Your task to perform on an android device: find which apps use the phone's location Image 0: 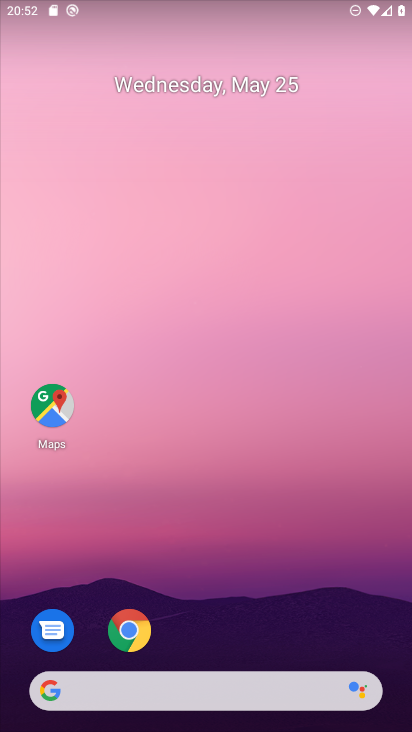
Step 0: drag from (256, 600) to (326, 148)
Your task to perform on an android device: find which apps use the phone's location Image 1: 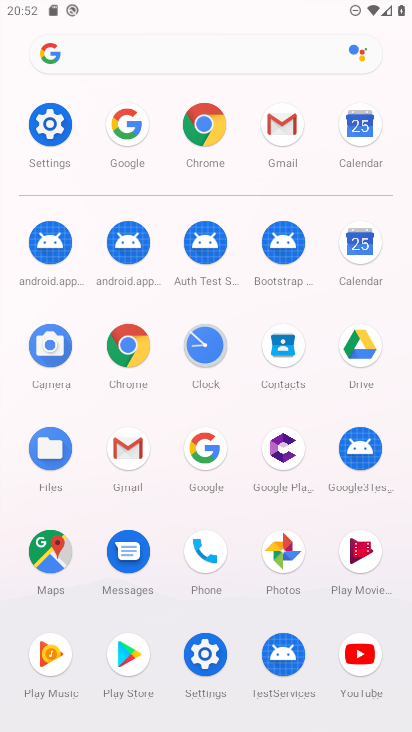
Step 1: click (48, 124)
Your task to perform on an android device: find which apps use the phone's location Image 2: 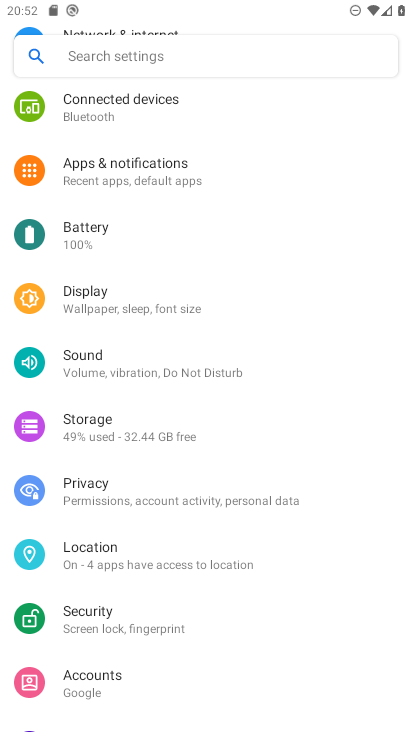
Step 2: click (104, 562)
Your task to perform on an android device: find which apps use the phone's location Image 3: 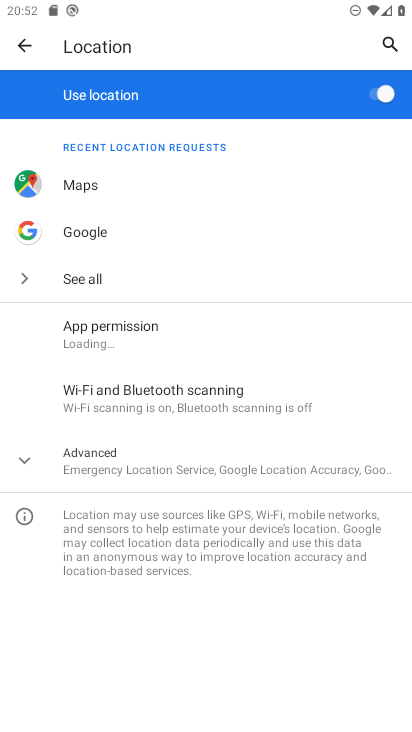
Step 3: click (106, 333)
Your task to perform on an android device: find which apps use the phone's location Image 4: 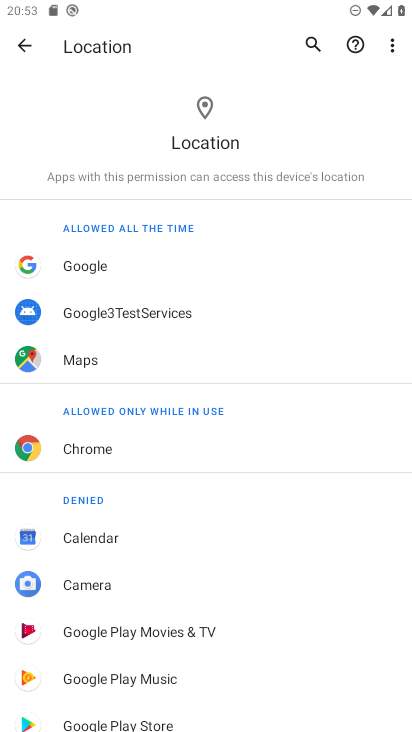
Step 4: task complete